Your task to perform on an android device: Open maps Image 0: 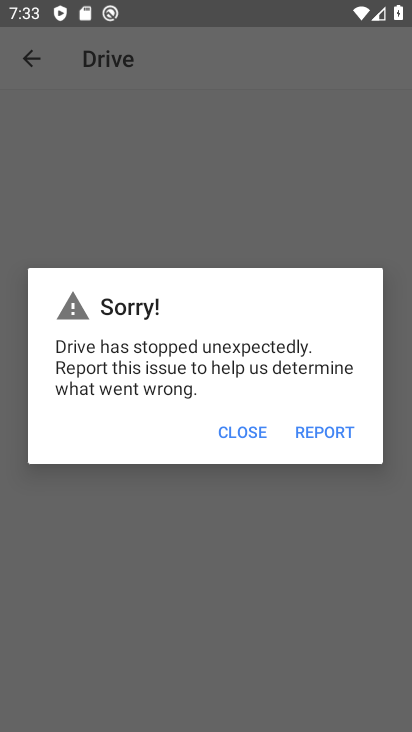
Step 0: press home button
Your task to perform on an android device: Open maps Image 1: 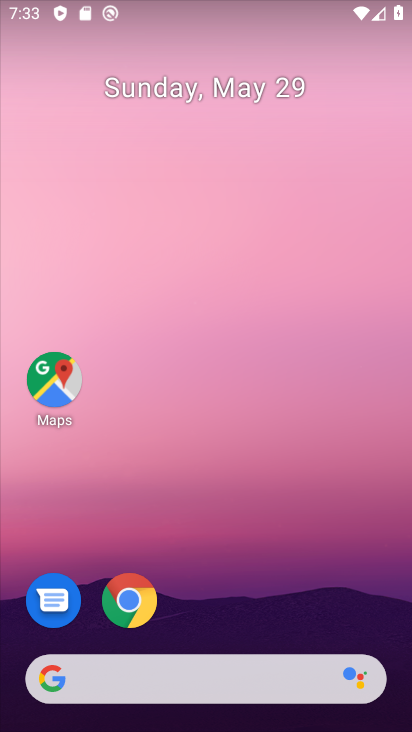
Step 1: click (60, 366)
Your task to perform on an android device: Open maps Image 2: 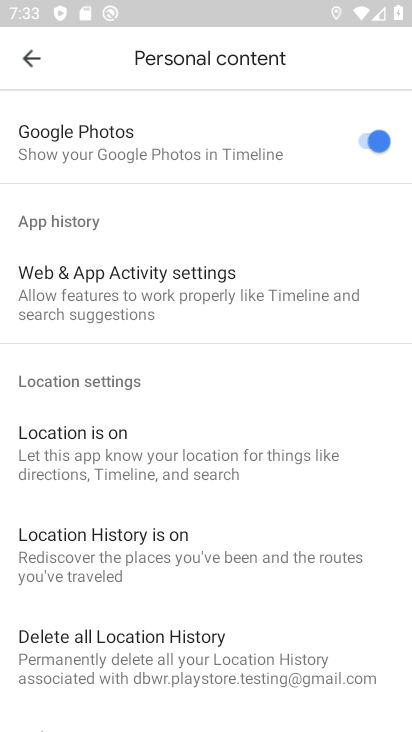
Step 2: click (26, 75)
Your task to perform on an android device: Open maps Image 3: 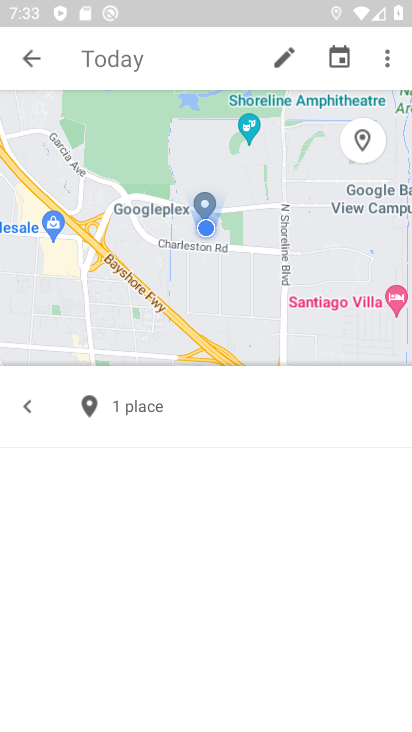
Step 3: click (36, 52)
Your task to perform on an android device: Open maps Image 4: 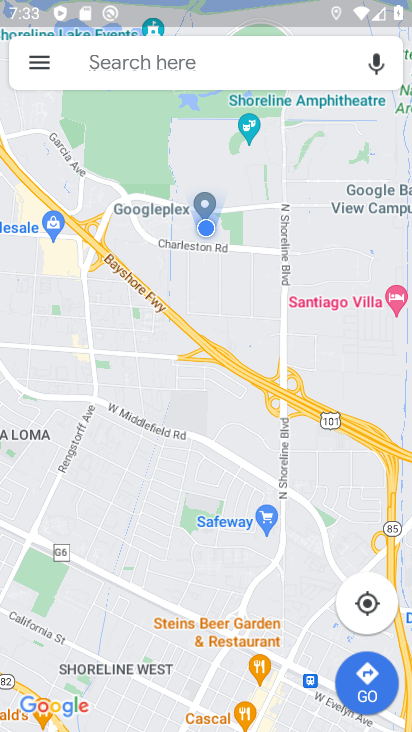
Step 4: task complete